Your task to perform on an android device: Open wifi settings Image 0: 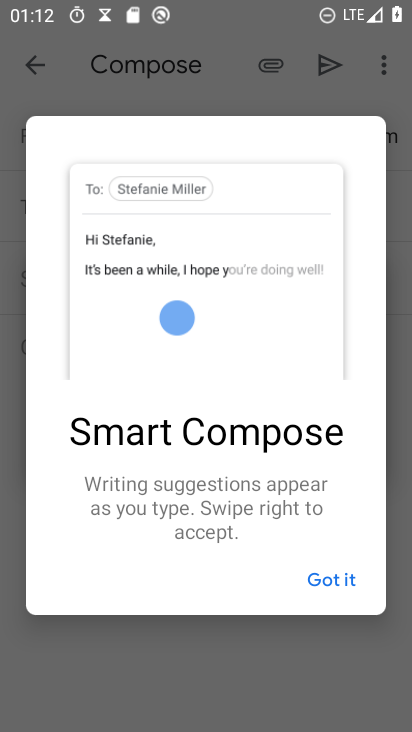
Step 0: press home button
Your task to perform on an android device: Open wifi settings Image 1: 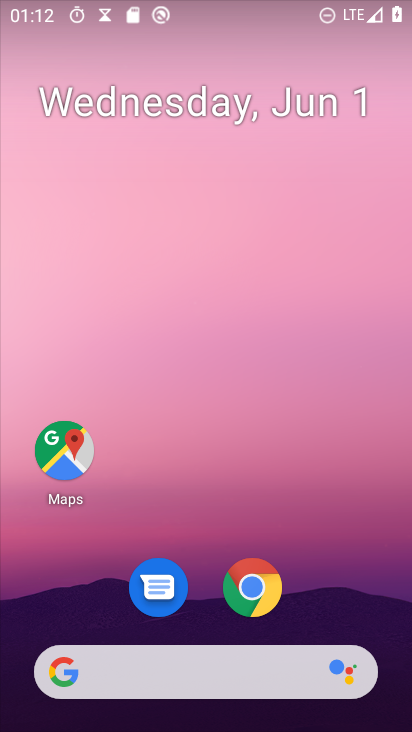
Step 1: drag from (330, 617) to (326, 36)
Your task to perform on an android device: Open wifi settings Image 2: 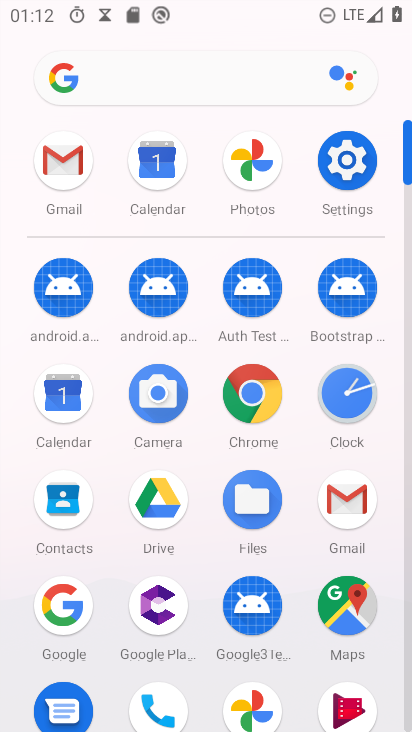
Step 2: click (341, 157)
Your task to perform on an android device: Open wifi settings Image 3: 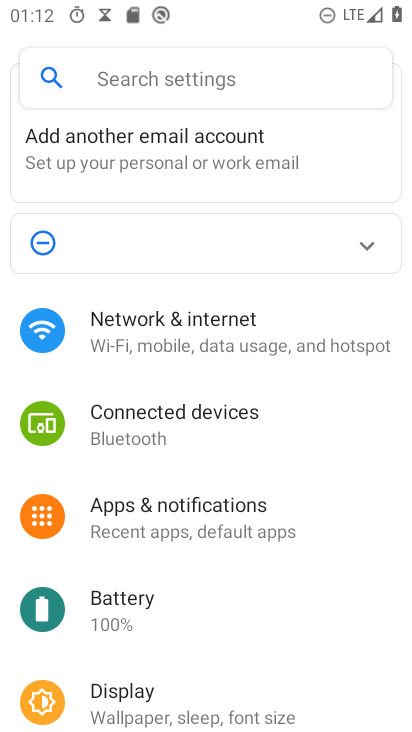
Step 3: click (185, 349)
Your task to perform on an android device: Open wifi settings Image 4: 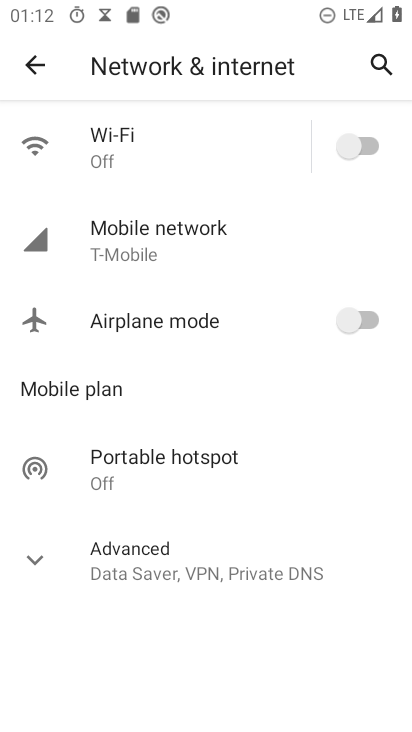
Step 4: click (94, 155)
Your task to perform on an android device: Open wifi settings Image 5: 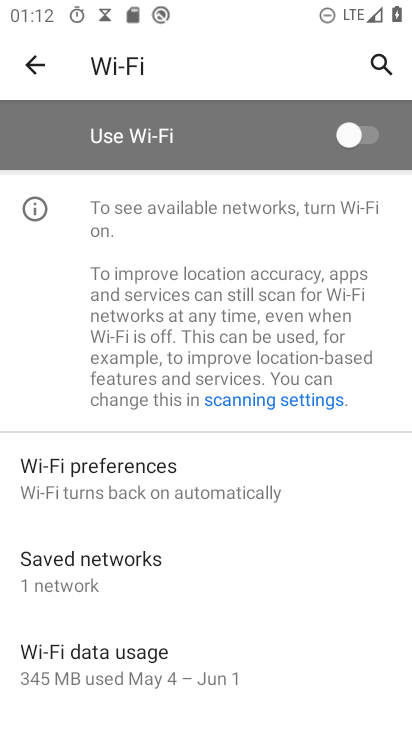
Step 5: task complete